Your task to perform on an android device: Search for sushi restaurants on Maps Image 0: 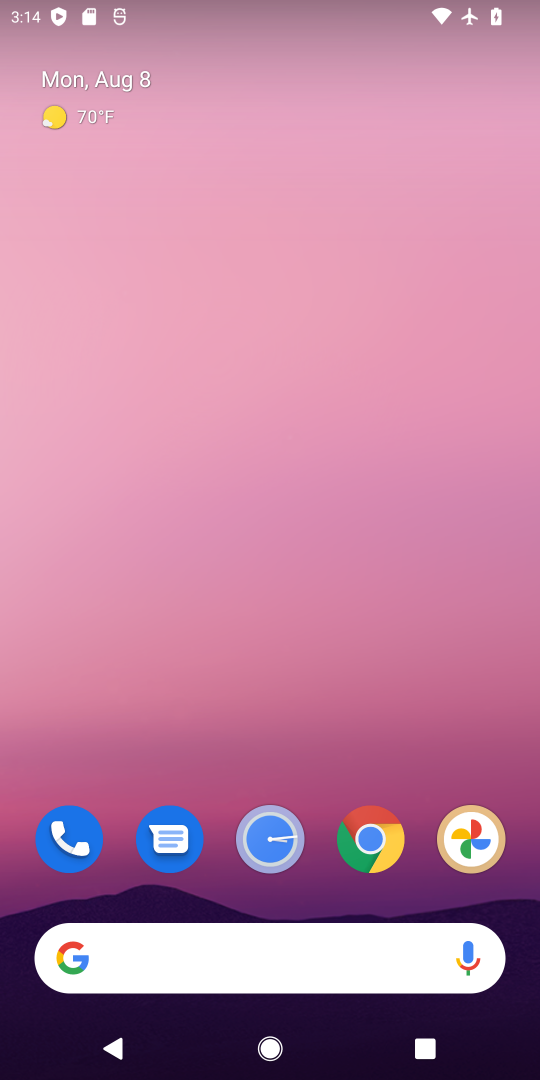
Step 0: press home button
Your task to perform on an android device: Search for sushi restaurants on Maps Image 1: 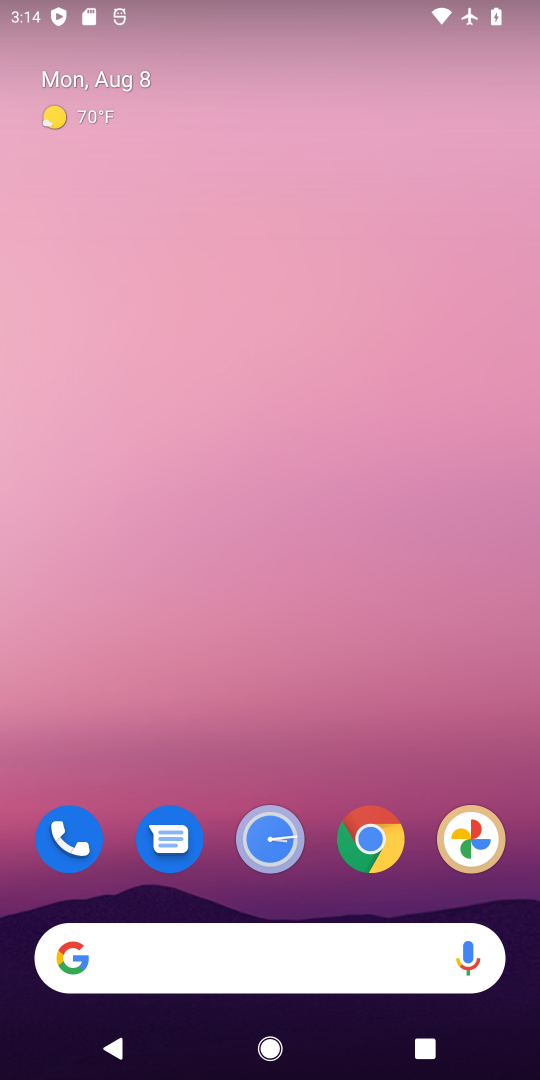
Step 1: drag from (423, 710) to (438, 219)
Your task to perform on an android device: Search for sushi restaurants on Maps Image 2: 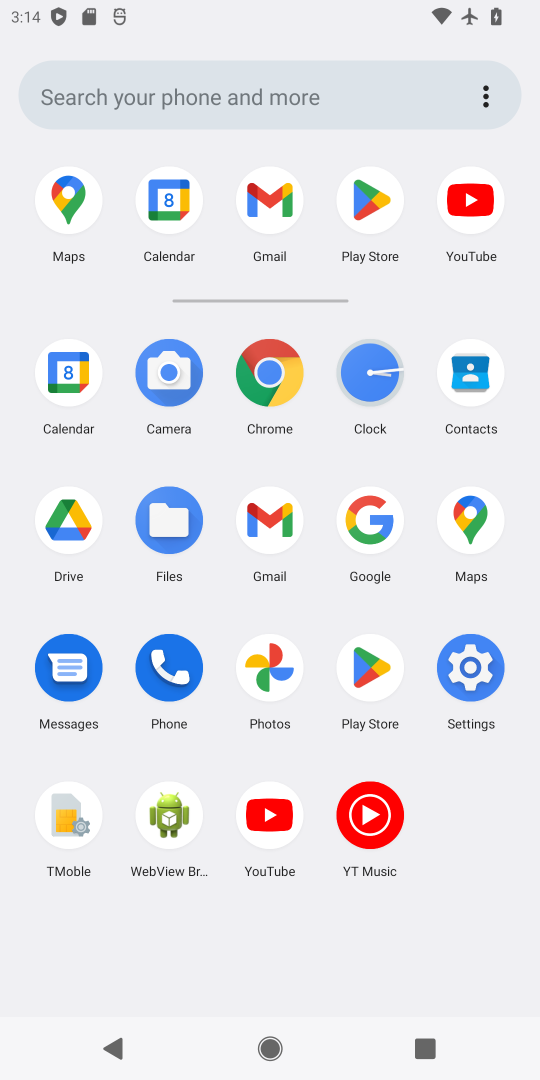
Step 2: click (489, 521)
Your task to perform on an android device: Search for sushi restaurants on Maps Image 3: 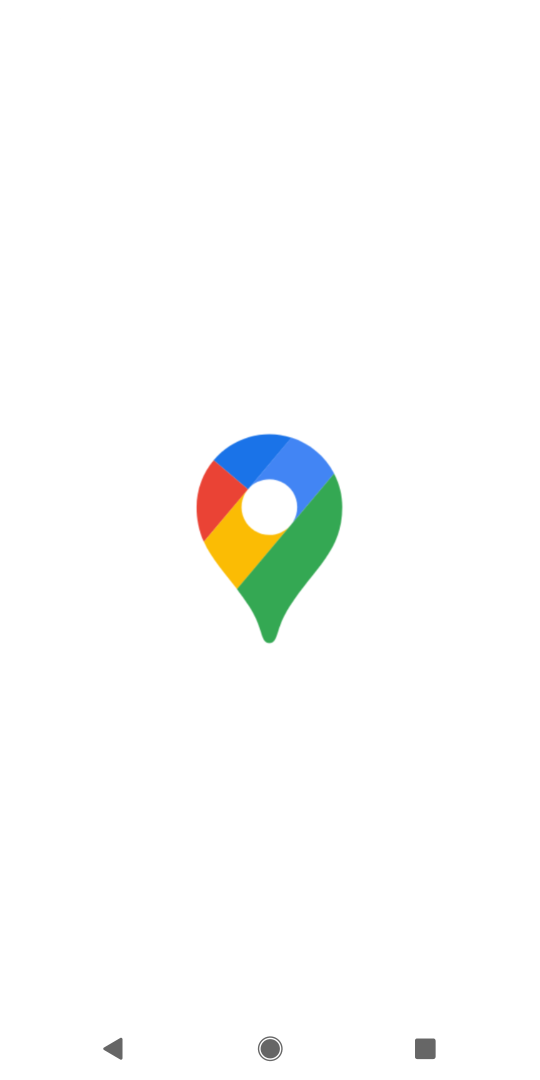
Step 3: task complete